Your task to perform on an android device: change the upload size in google photos Image 0: 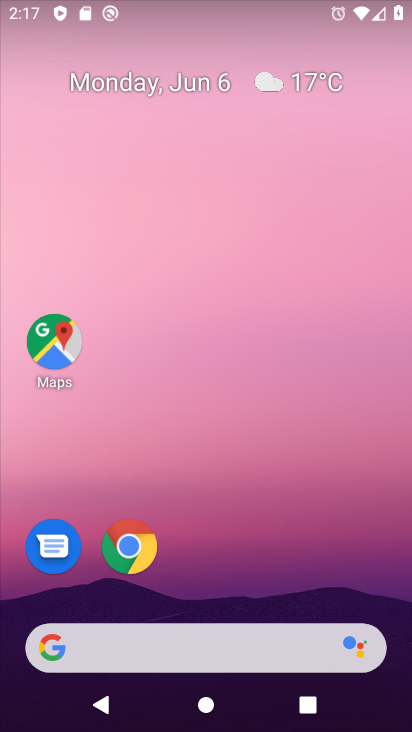
Step 0: drag from (237, 460) to (235, 149)
Your task to perform on an android device: change the upload size in google photos Image 1: 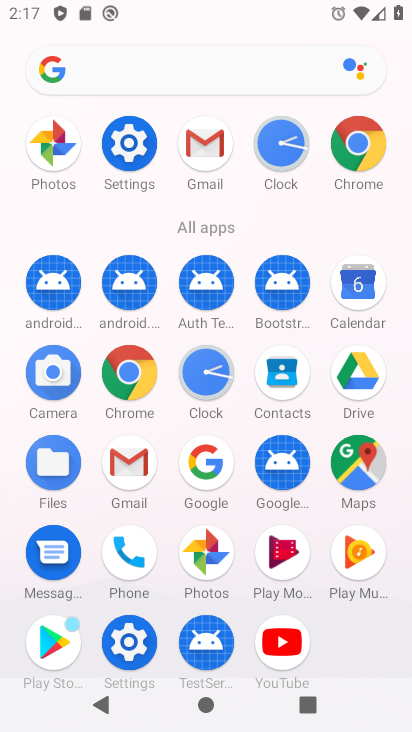
Step 1: click (197, 557)
Your task to perform on an android device: change the upload size in google photos Image 2: 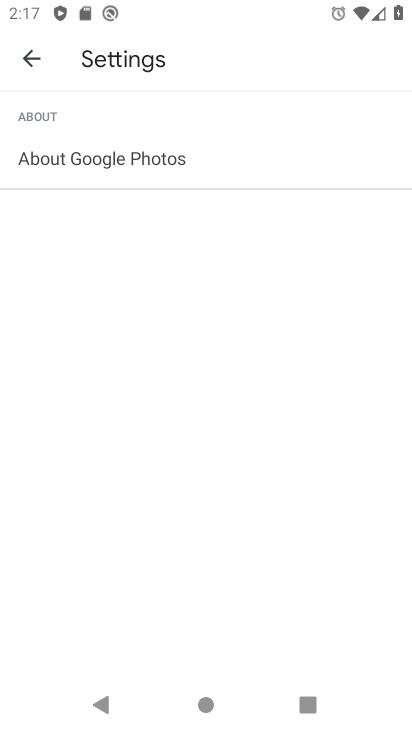
Step 2: click (46, 61)
Your task to perform on an android device: change the upload size in google photos Image 3: 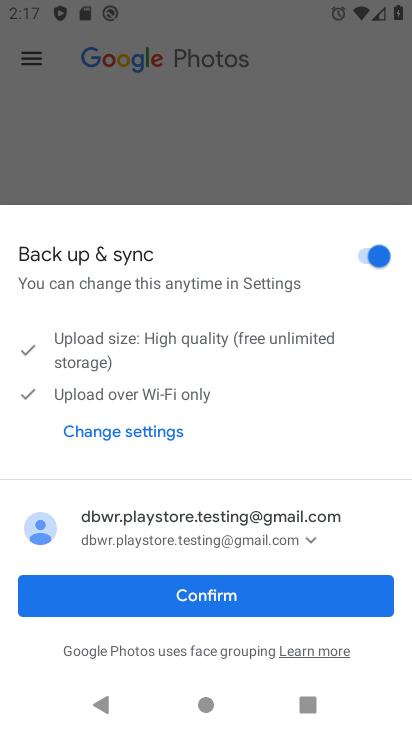
Step 3: click (37, 54)
Your task to perform on an android device: change the upload size in google photos Image 4: 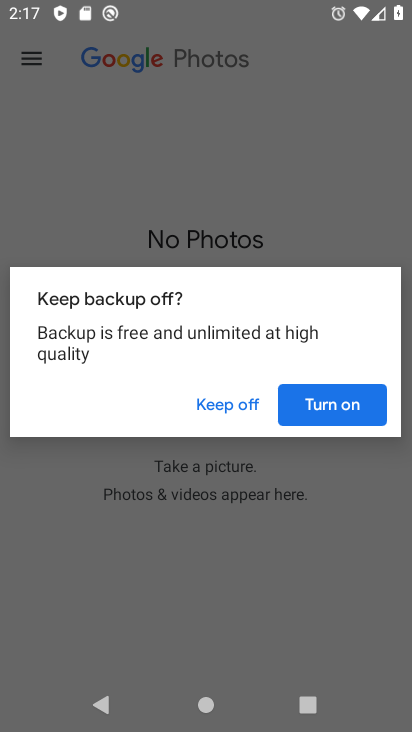
Step 4: click (345, 405)
Your task to perform on an android device: change the upload size in google photos Image 5: 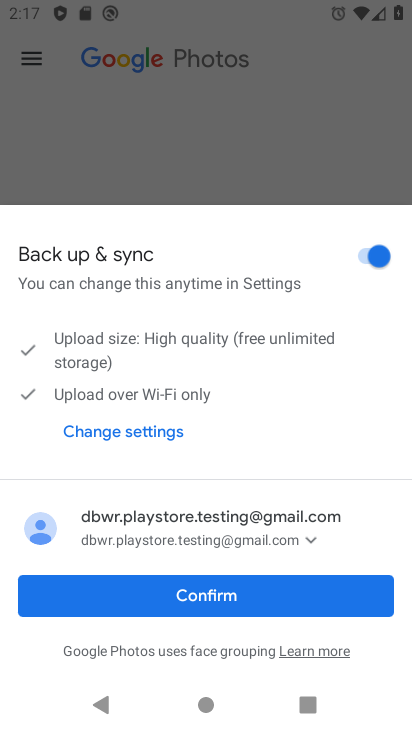
Step 5: click (19, 43)
Your task to perform on an android device: change the upload size in google photos Image 6: 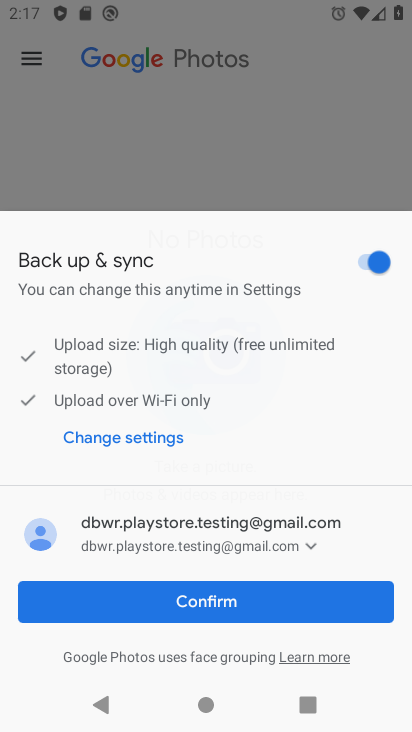
Step 6: click (24, 78)
Your task to perform on an android device: change the upload size in google photos Image 7: 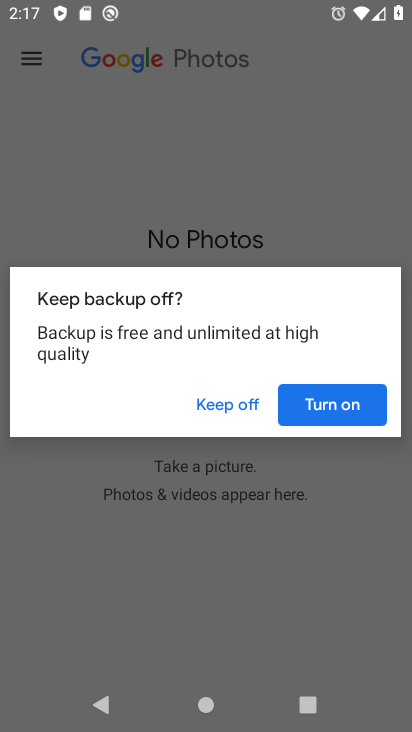
Step 7: click (26, 66)
Your task to perform on an android device: change the upload size in google photos Image 8: 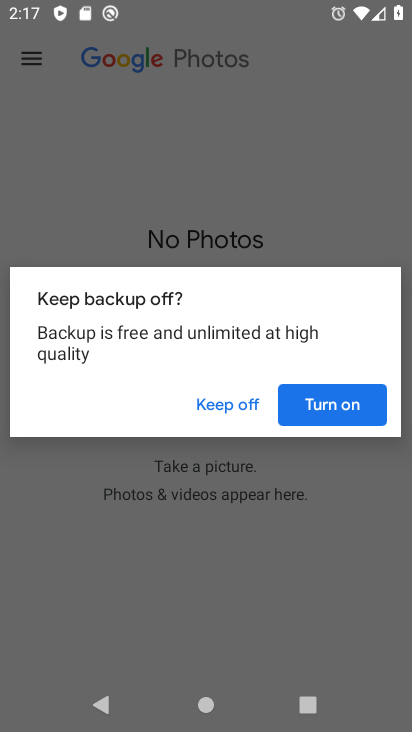
Step 8: click (317, 418)
Your task to perform on an android device: change the upload size in google photos Image 9: 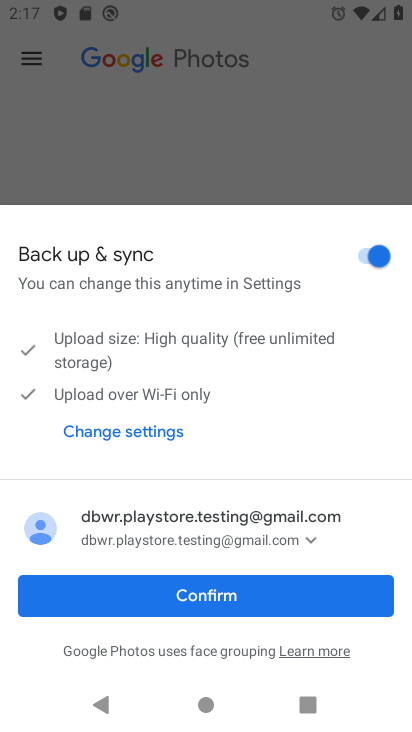
Step 9: click (257, 578)
Your task to perform on an android device: change the upload size in google photos Image 10: 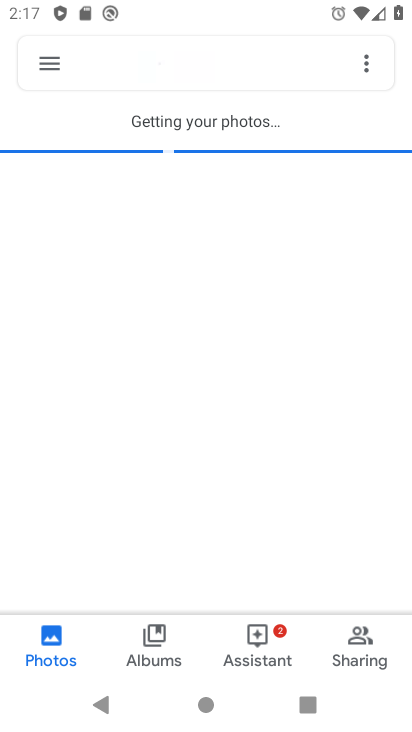
Step 10: click (41, 67)
Your task to perform on an android device: change the upload size in google photos Image 11: 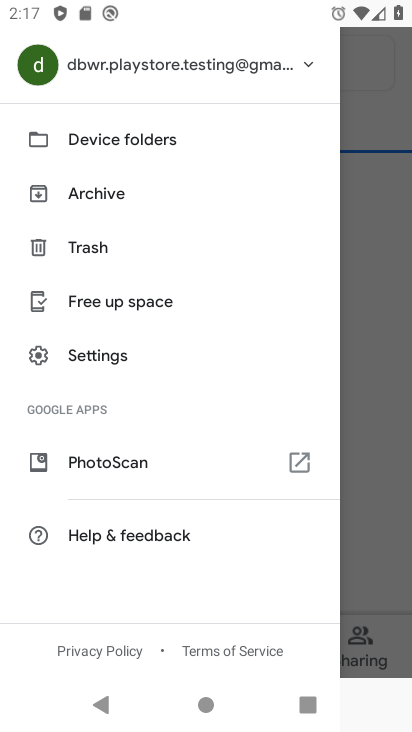
Step 11: click (108, 356)
Your task to perform on an android device: change the upload size in google photos Image 12: 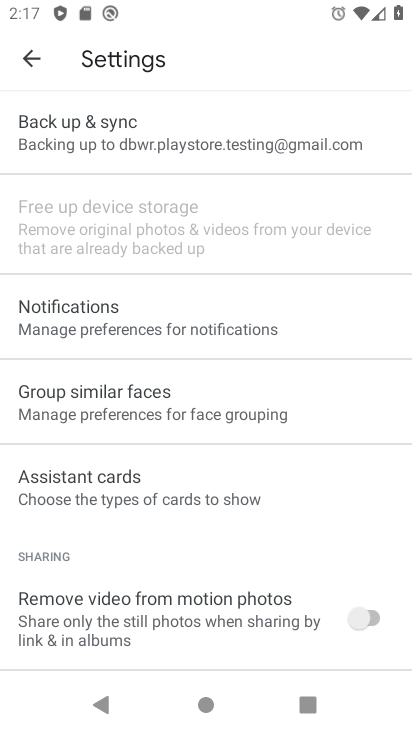
Step 12: click (145, 133)
Your task to perform on an android device: change the upload size in google photos Image 13: 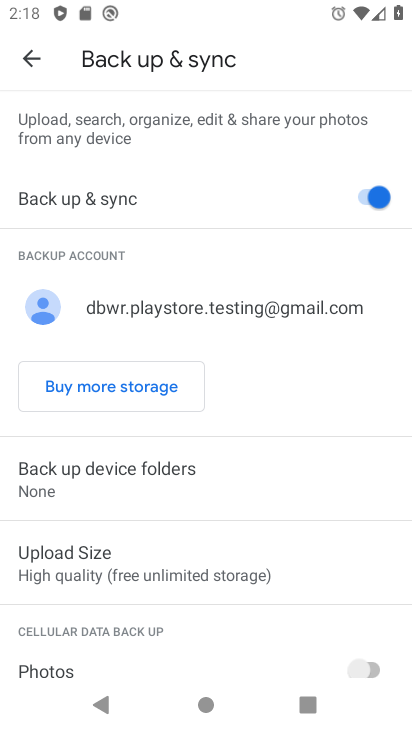
Step 13: click (84, 561)
Your task to perform on an android device: change the upload size in google photos Image 14: 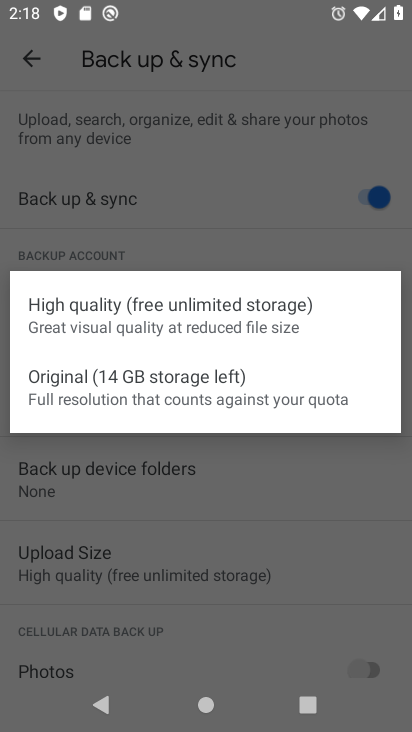
Step 14: click (128, 394)
Your task to perform on an android device: change the upload size in google photos Image 15: 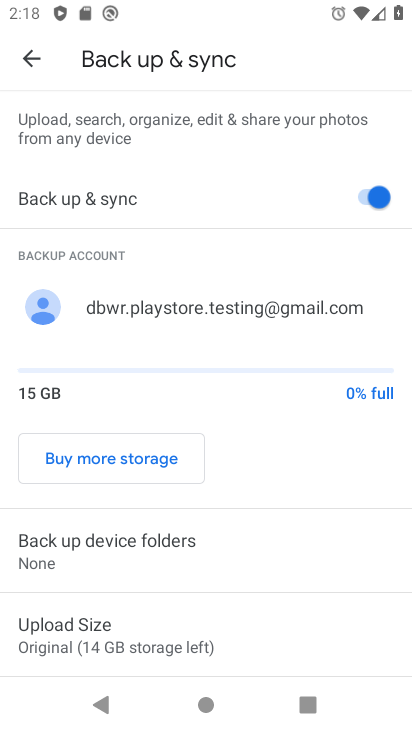
Step 15: task complete